Your task to perform on an android device: Set the phone to "Do not disturb". Image 0: 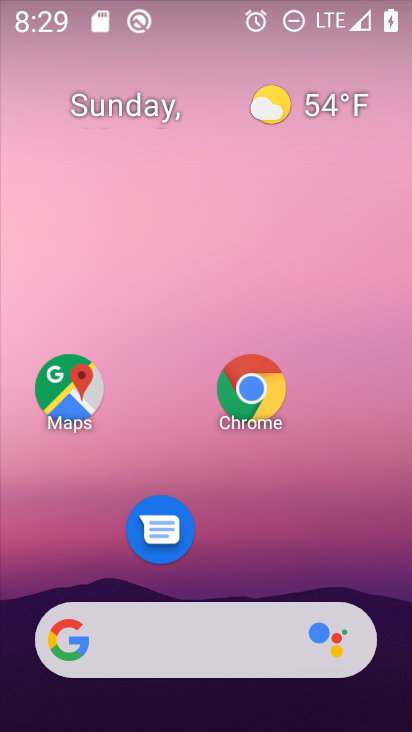
Step 0: drag from (258, 577) to (300, 61)
Your task to perform on an android device: Set the phone to "Do not disturb". Image 1: 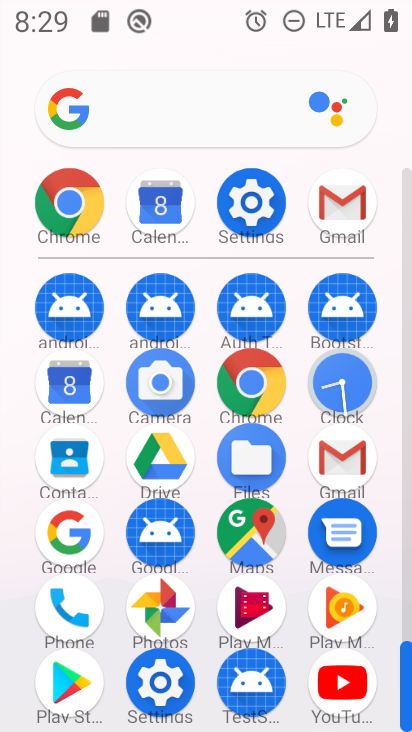
Step 1: click (252, 209)
Your task to perform on an android device: Set the phone to "Do not disturb". Image 2: 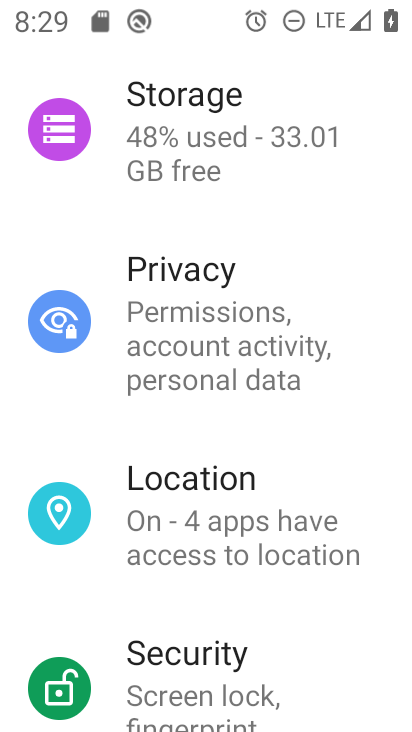
Step 2: drag from (234, 247) to (234, 699)
Your task to perform on an android device: Set the phone to "Do not disturb". Image 3: 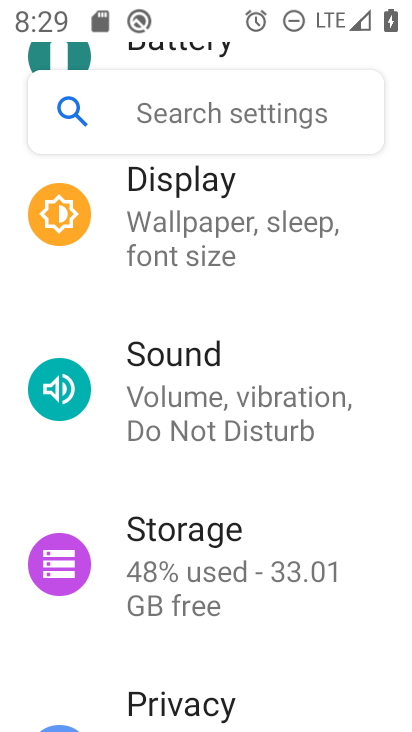
Step 3: click (182, 393)
Your task to perform on an android device: Set the phone to "Do not disturb". Image 4: 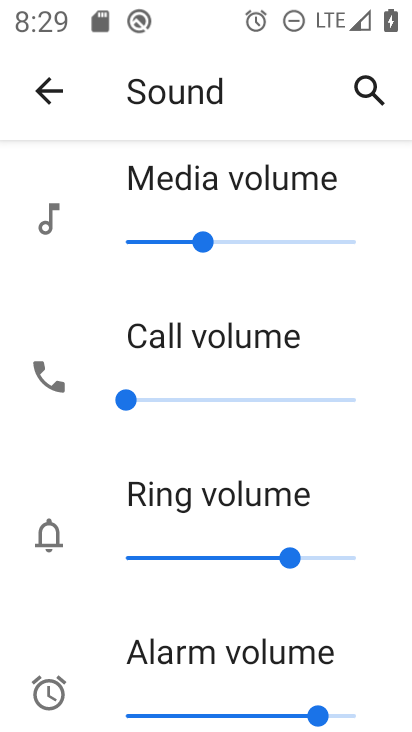
Step 4: task complete